Your task to perform on an android device: move a message to another label in the gmail app Image 0: 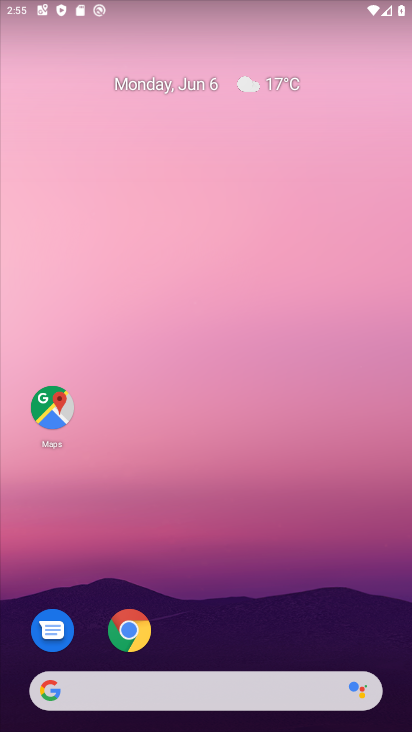
Step 0: drag from (183, 599) to (260, 97)
Your task to perform on an android device: move a message to another label in the gmail app Image 1: 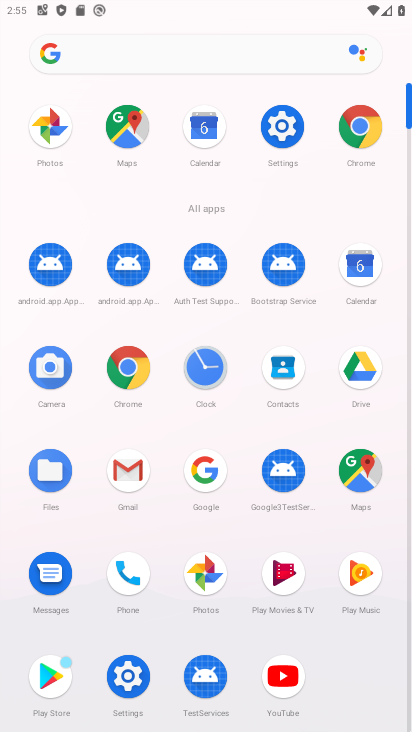
Step 1: click (131, 458)
Your task to perform on an android device: move a message to another label in the gmail app Image 2: 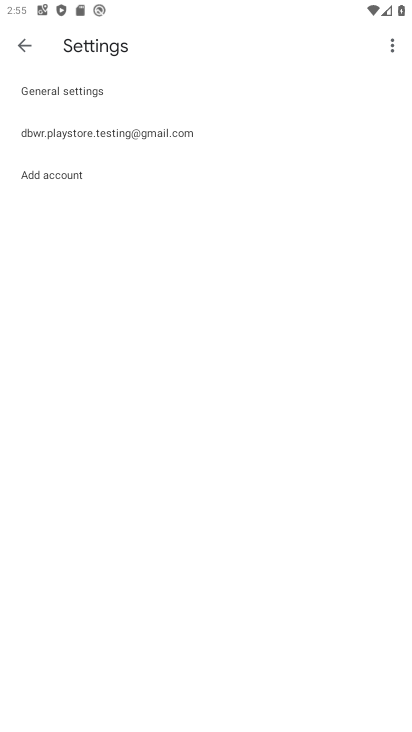
Step 2: click (27, 38)
Your task to perform on an android device: move a message to another label in the gmail app Image 3: 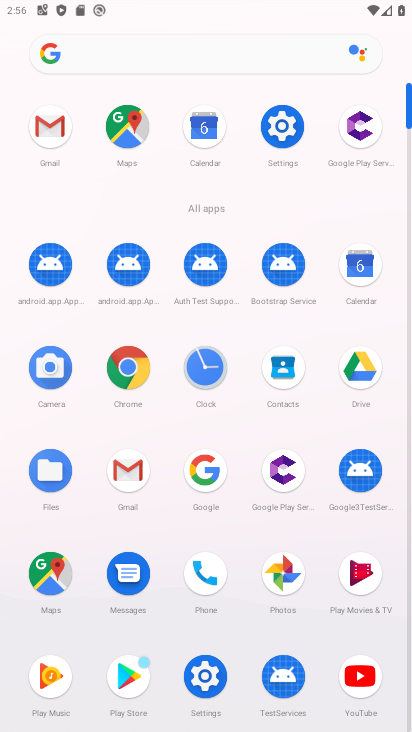
Step 3: click (133, 469)
Your task to perform on an android device: move a message to another label in the gmail app Image 4: 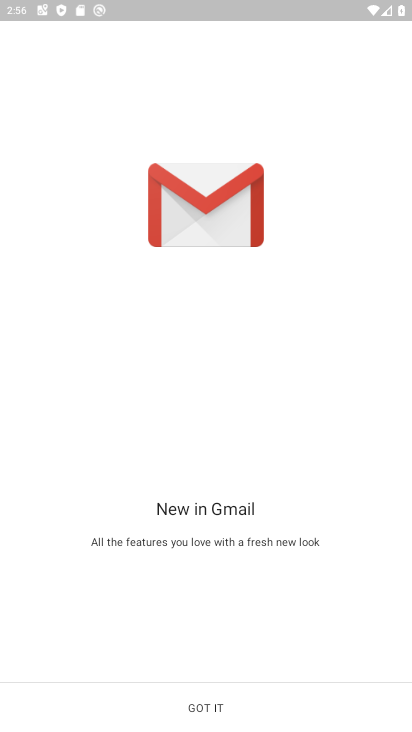
Step 4: click (200, 714)
Your task to perform on an android device: move a message to another label in the gmail app Image 5: 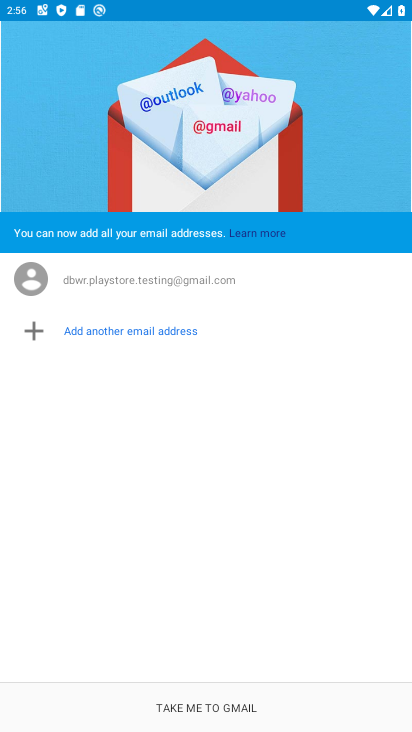
Step 5: click (182, 703)
Your task to perform on an android device: move a message to another label in the gmail app Image 6: 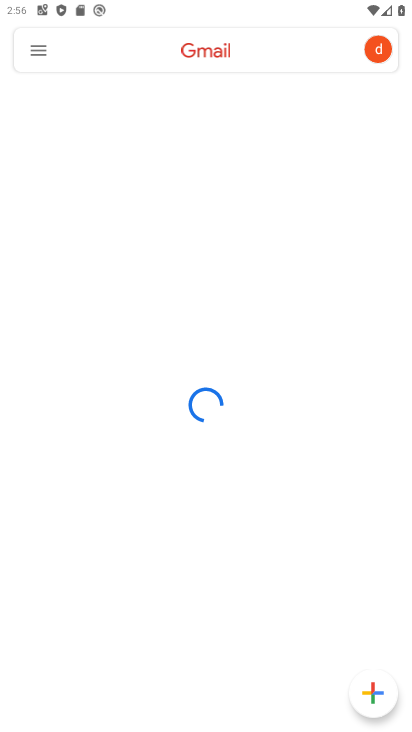
Step 6: click (27, 45)
Your task to perform on an android device: move a message to another label in the gmail app Image 7: 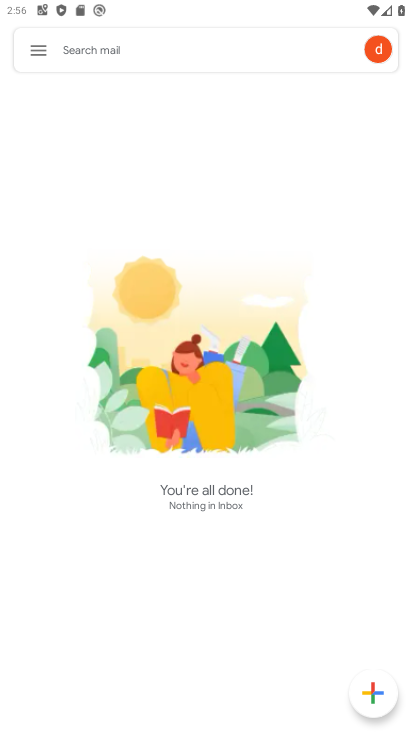
Step 7: click (34, 58)
Your task to perform on an android device: move a message to another label in the gmail app Image 8: 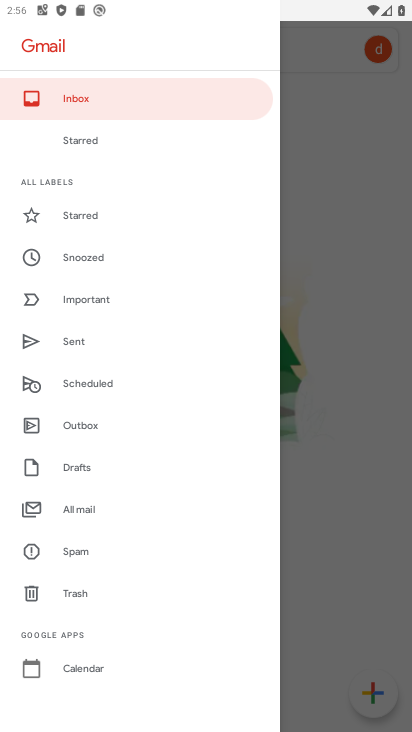
Step 8: click (92, 512)
Your task to perform on an android device: move a message to another label in the gmail app Image 9: 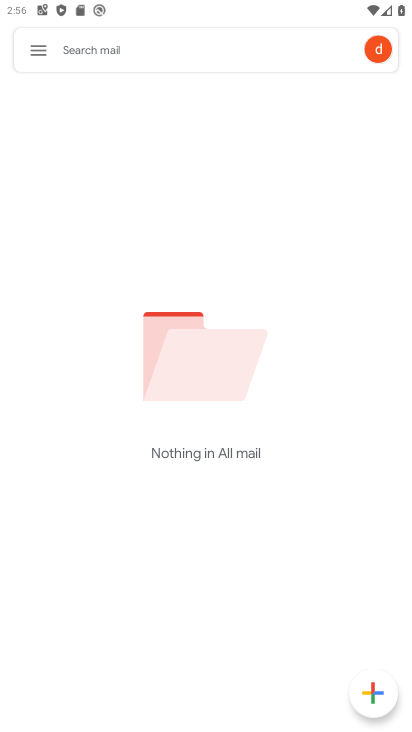
Step 9: task complete